Your task to perform on an android device: open app "PlayWell" Image 0: 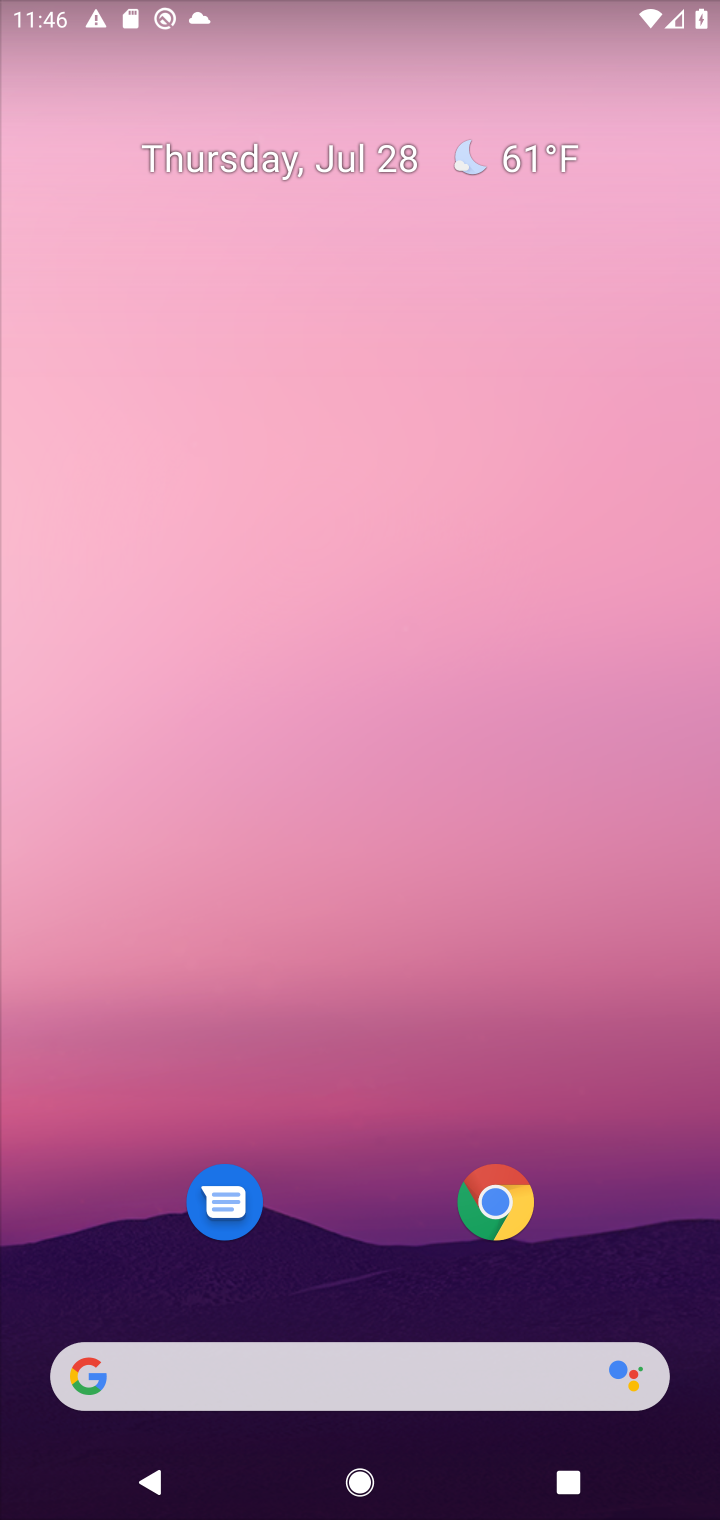
Step 0: drag from (380, 1335) to (489, 86)
Your task to perform on an android device: open app "PlayWell" Image 1: 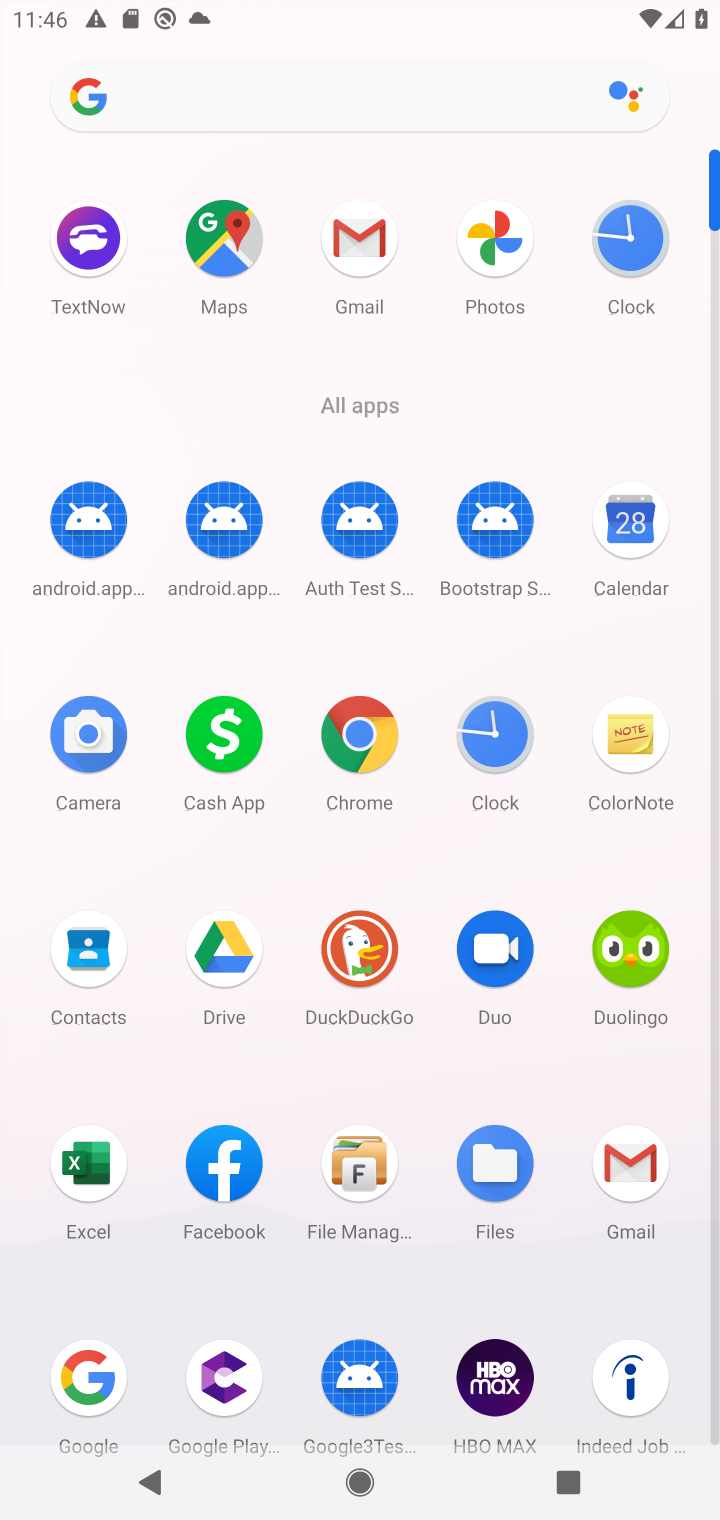
Step 1: click (325, 113)
Your task to perform on an android device: open app "PlayWell" Image 2: 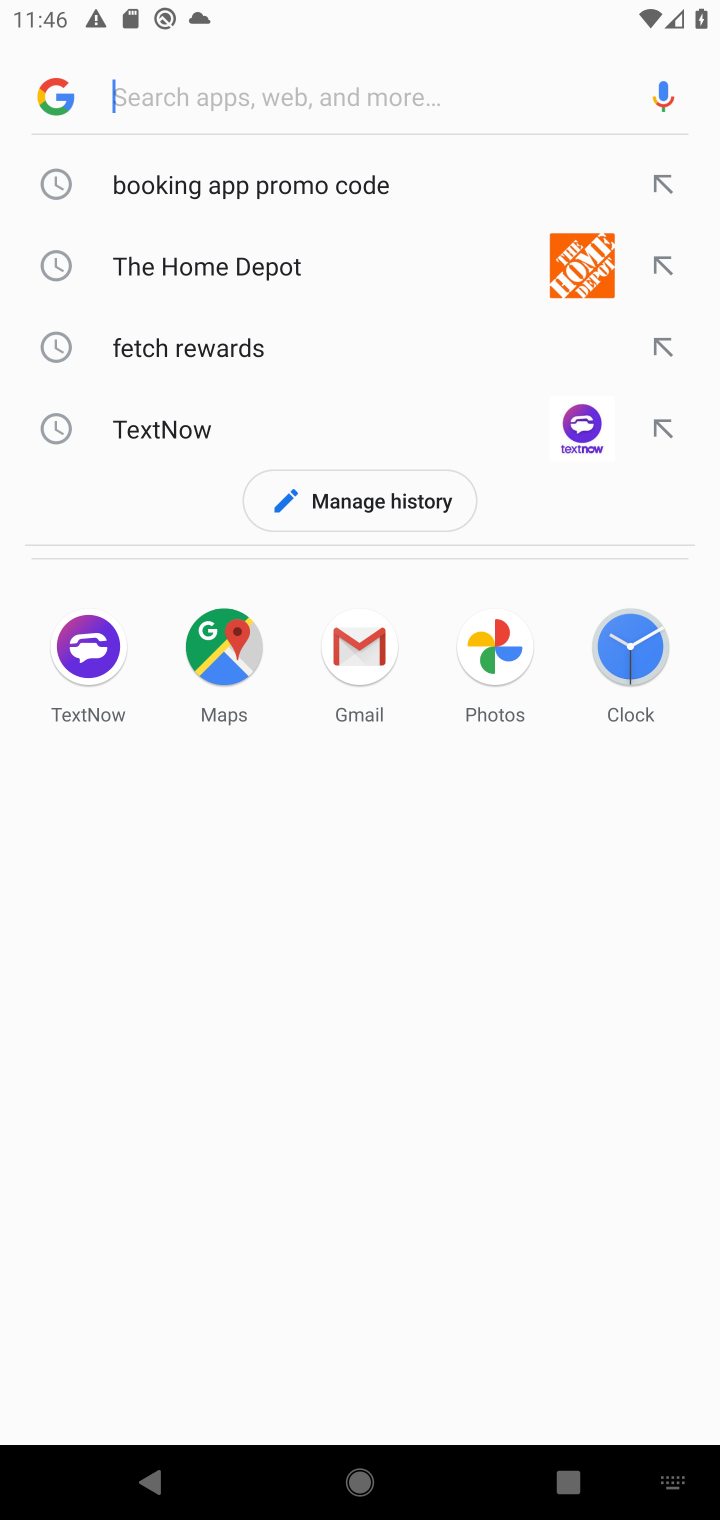
Step 2: type "playwell"
Your task to perform on an android device: open app "PlayWell" Image 3: 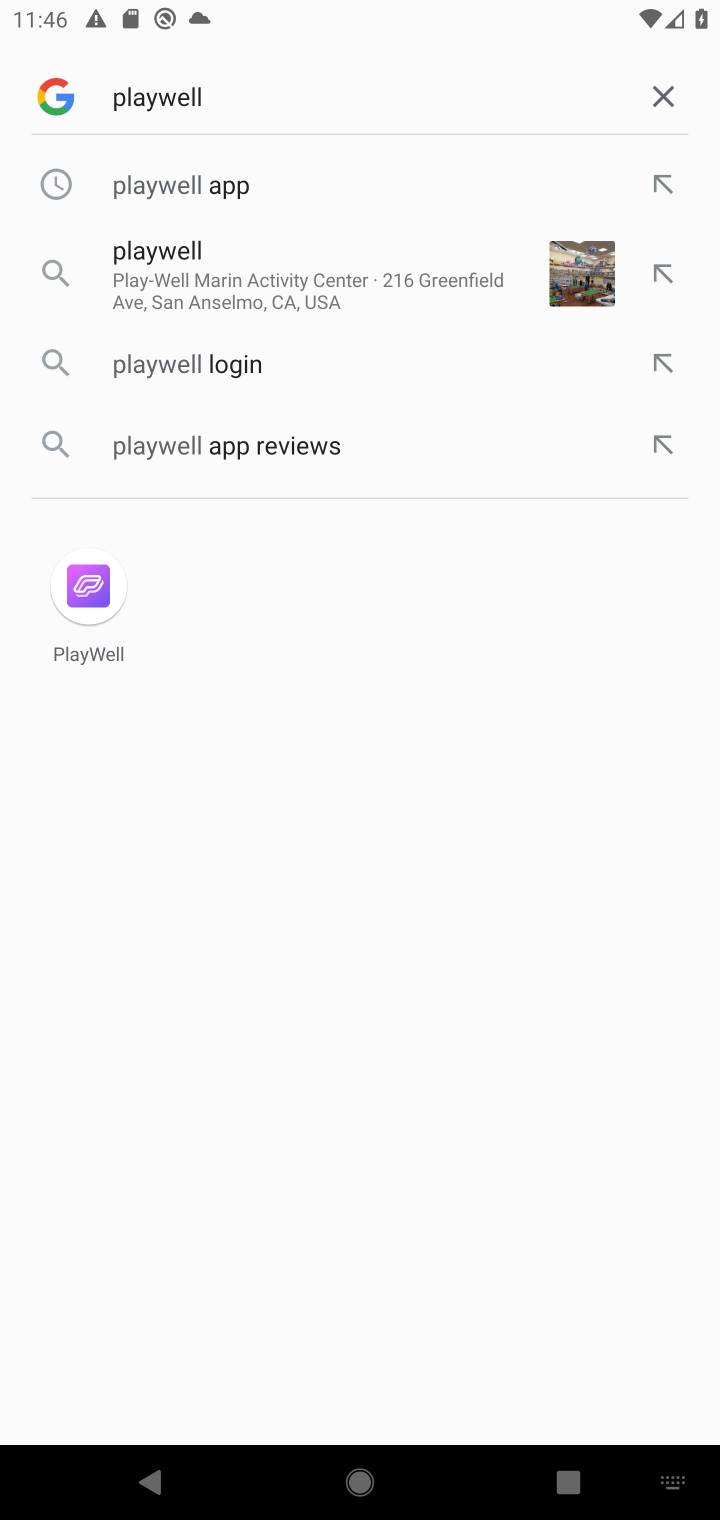
Step 3: click (214, 199)
Your task to perform on an android device: open app "PlayWell" Image 4: 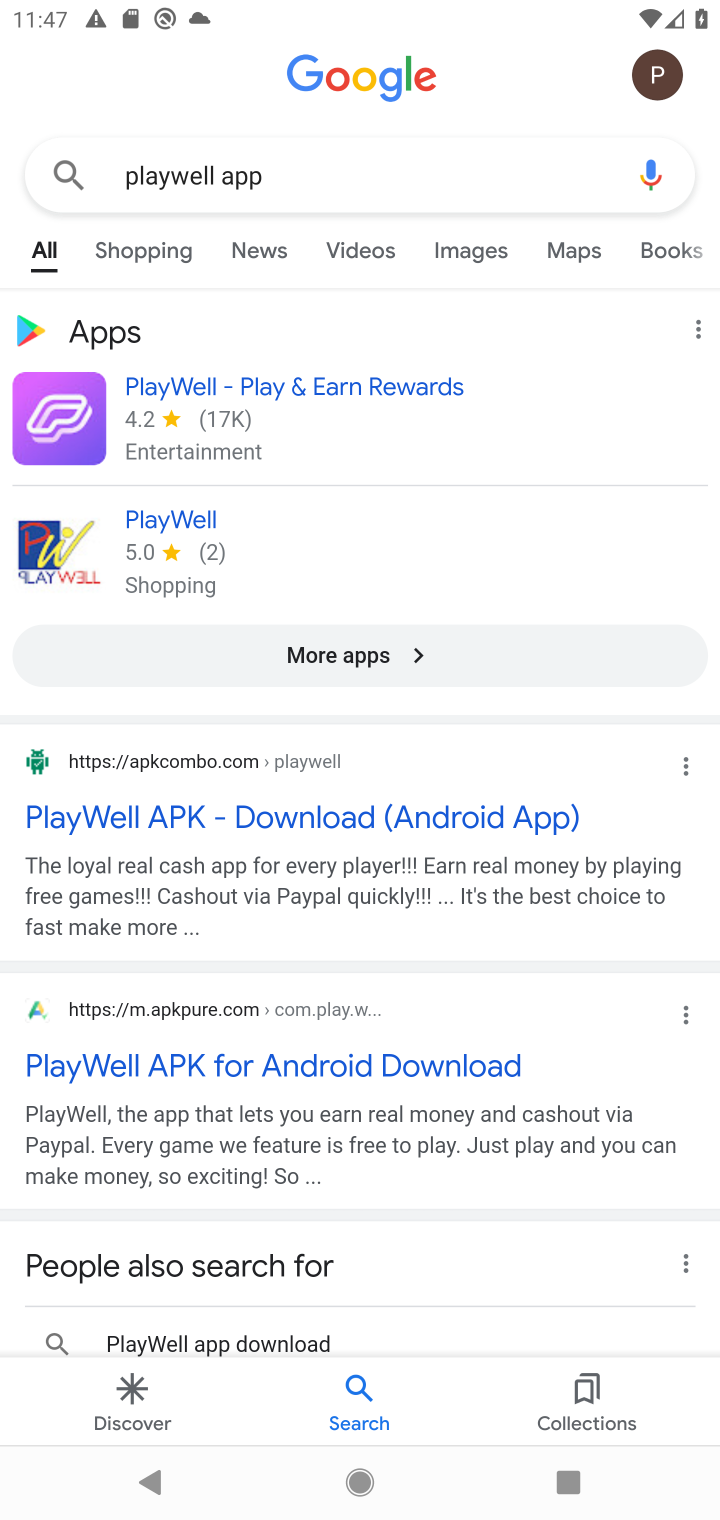
Step 4: task complete